Your task to perform on an android device: change text size in settings app Image 0: 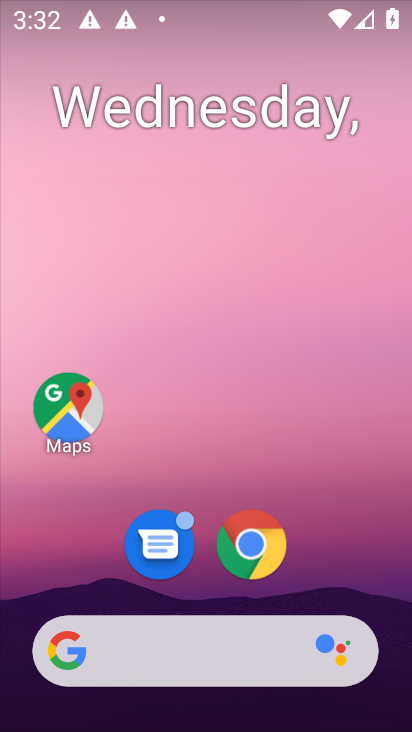
Step 0: drag from (370, 443) to (344, 78)
Your task to perform on an android device: change text size in settings app Image 1: 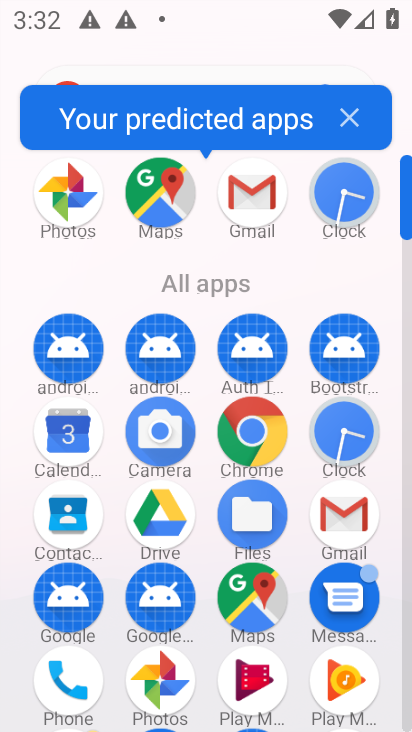
Step 1: drag from (206, 699) to (189, 293)
Your task to perform on an android device: change text size in settings app Image 2: 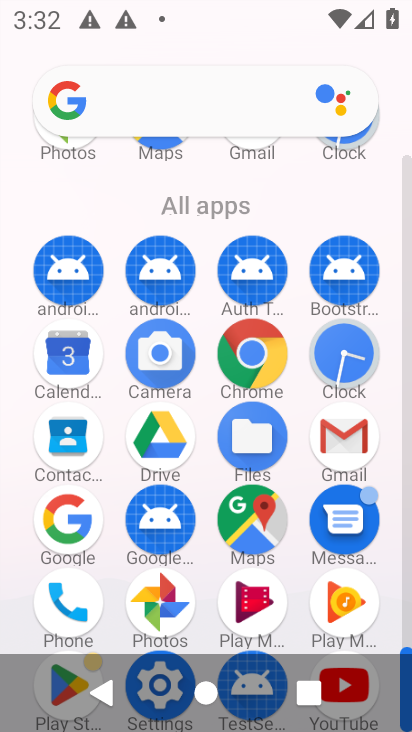
Step 2: click (150, 654)
Your task to perform on an android device: change text size in settings app Image 3: 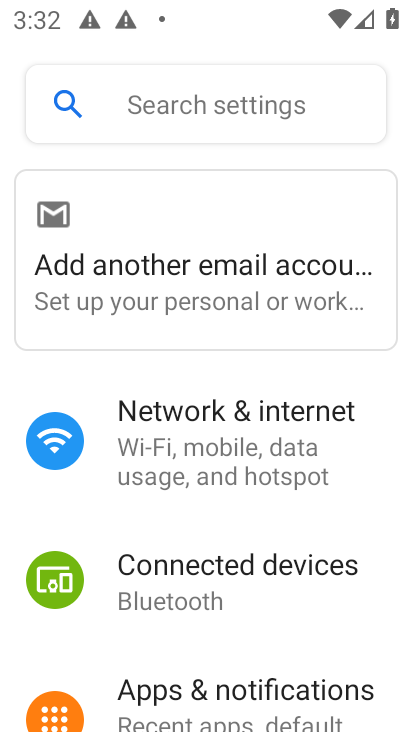
Step 3: drag from (266, 696) to (232, 411)
Your task to perform on an android device: change text size in settings app Image 4: 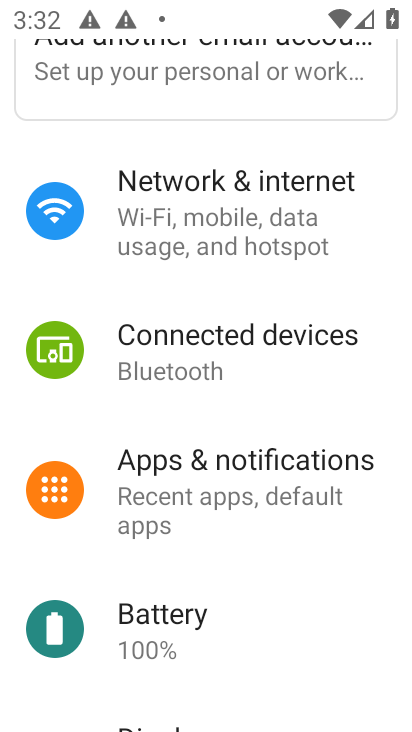
Step 4: drag from (221, 661) to (212, 320)
Your task to perform on an android device: change text size in settings app Image 5: 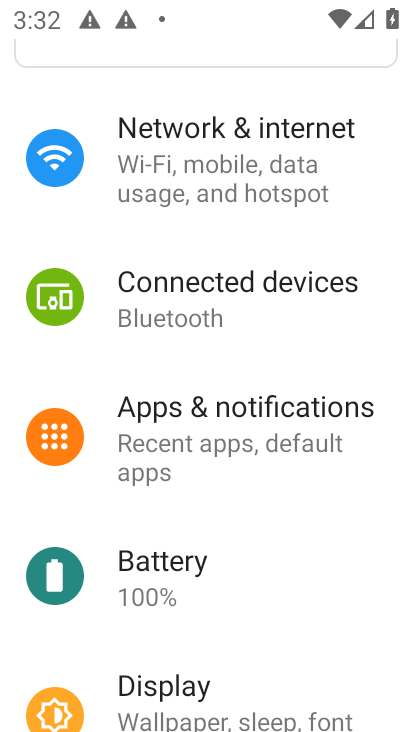
Step 5: click (159, 693)
Your task to perform on an android device: change text size in settings app Image 6: 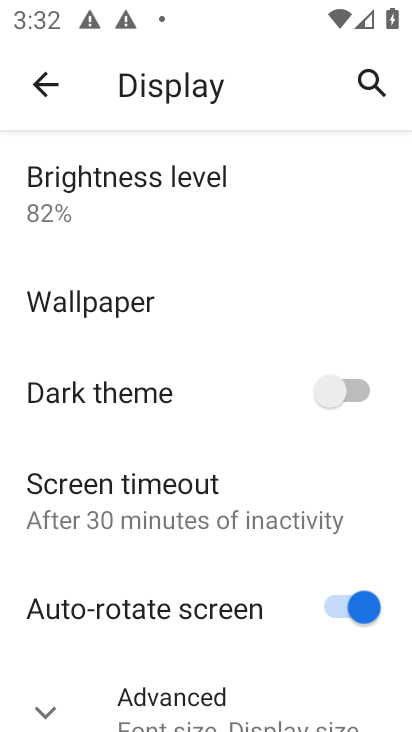
Step 6: click (52, 708)
Your task to perform on an android device: change text size in settings app Image 7: 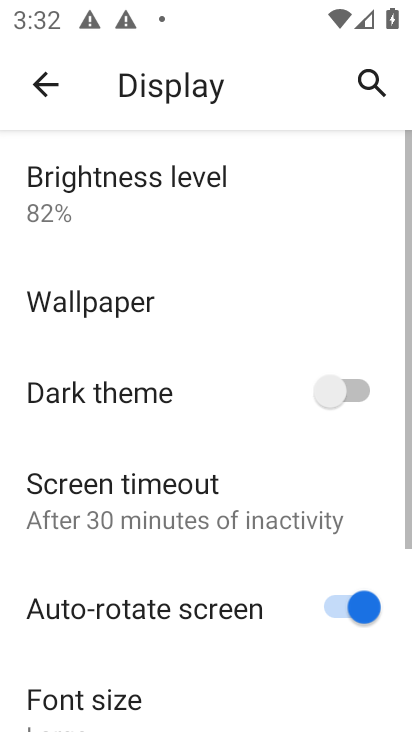
Step 7: drag from (270, 671) to (275, 368)
Your task to perform on an android device: change text size in settings app Image 8: 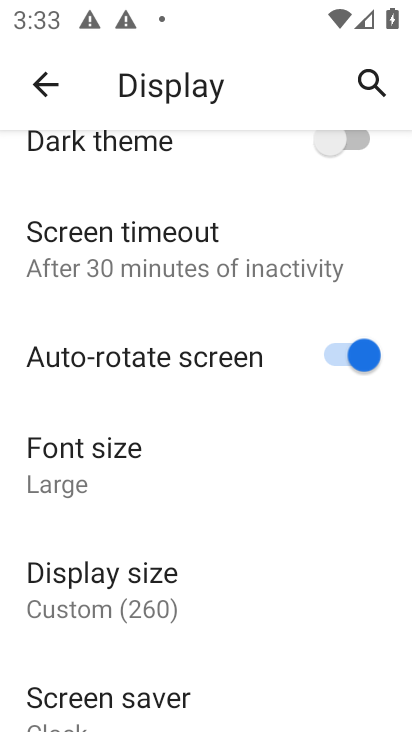
Step 8: click (68, 457)
Your task to perform on an android device: change text size in settings app Image 9: 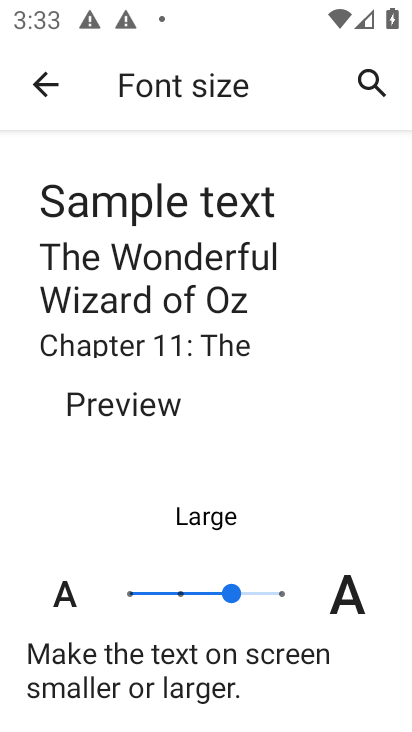
Step 9: click (126, 595)
Your task to perform on an android device: change text size in settings app Image 10: 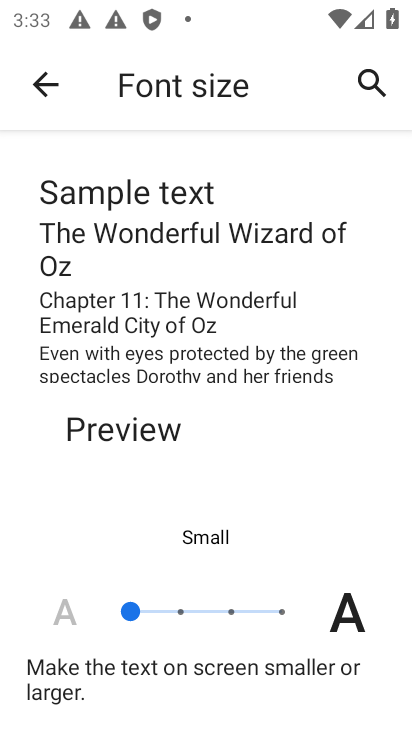
Step 10: click (42, 79)
Your task to perform on an android device: change text size in settings app Image 11: 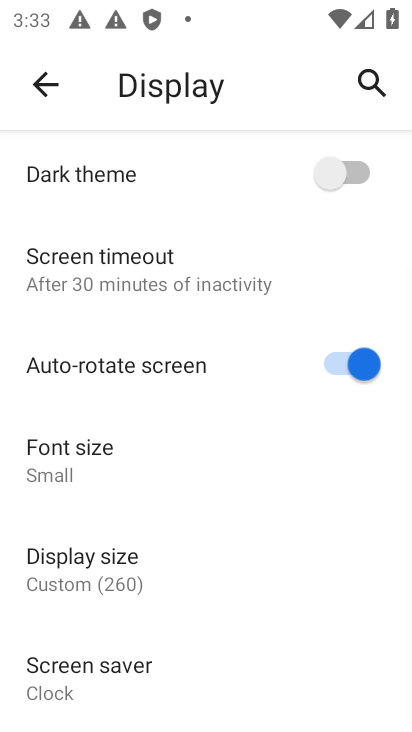
Step 11: click (83, 568)
Your task to perform on an android device: change text size in settings app Image 12: 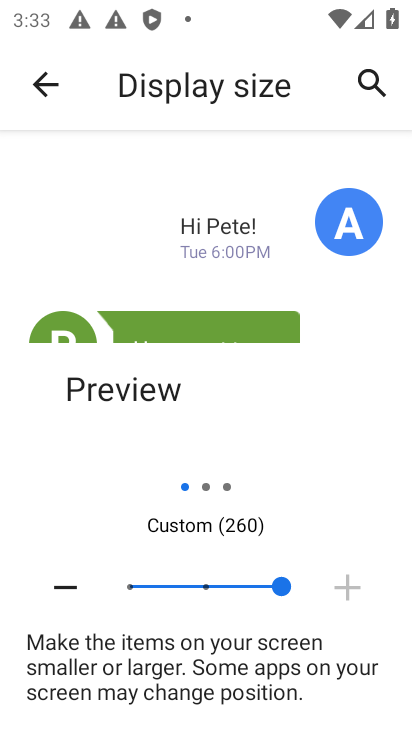
Step 12: click (199, 583)
Your task to perform on an android device: change text size in settings app Image 13: 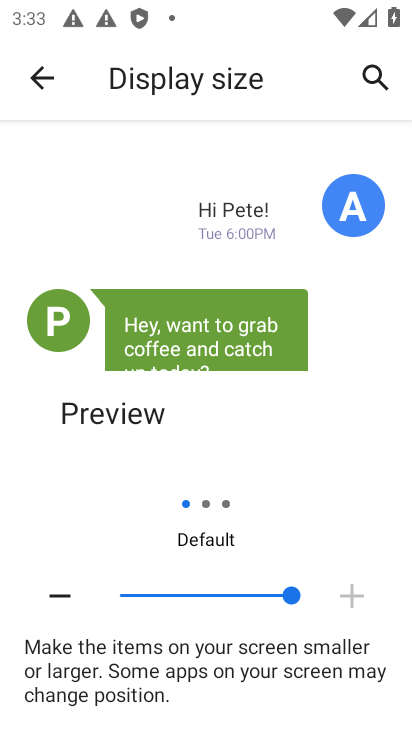
Step 13: click (62, 598)
Your task to perform on an android device: change text size in settings app Image 14: 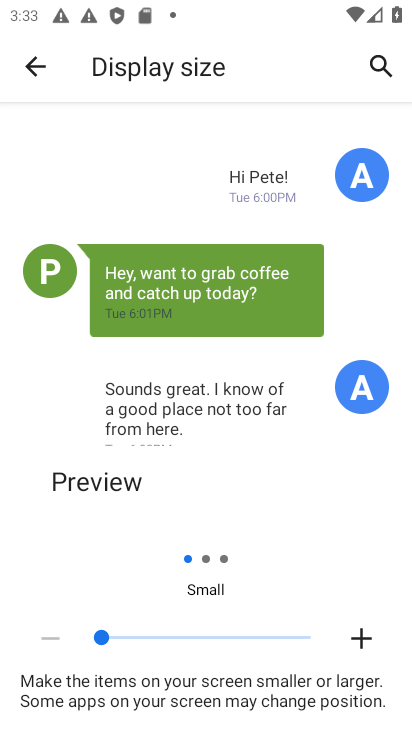
Step 14: click (35, 62)
Your task to perform on an android device: change text size in settings app Image 15: 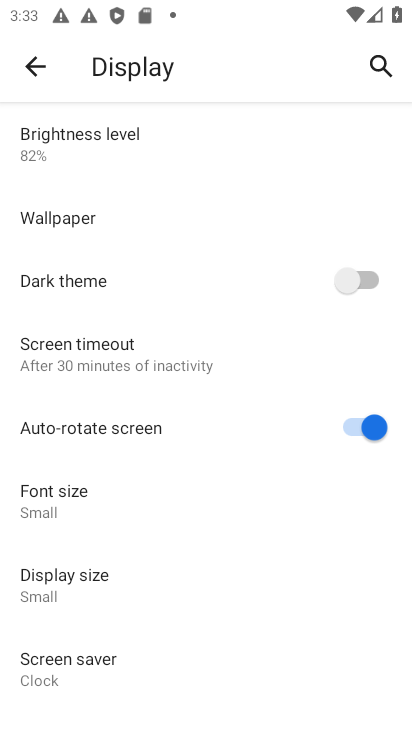
Step 15: task complete